Your task to perform on an android device: change alarm snooze length Image 0: 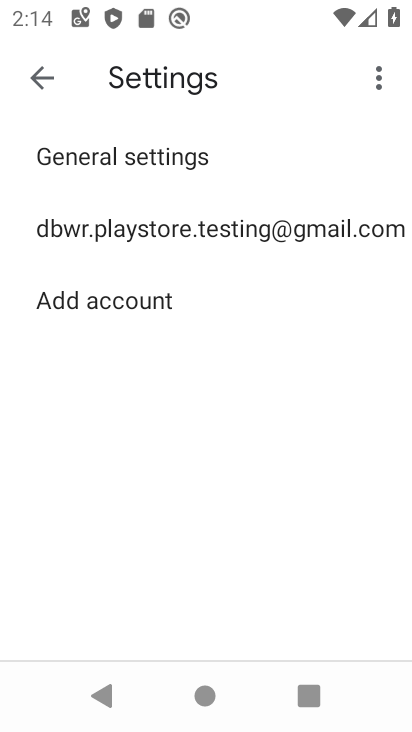
Step 0: press home button
Your task to perform on an android device: change alarm snooze length Image 1: 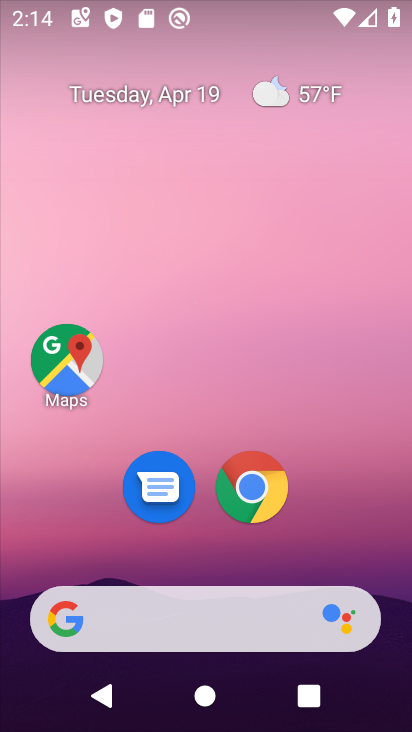
Step 1: drag from (200, 451) to (191, 43)
Your task to perform on an android device: change alarm snooze length Image 2: 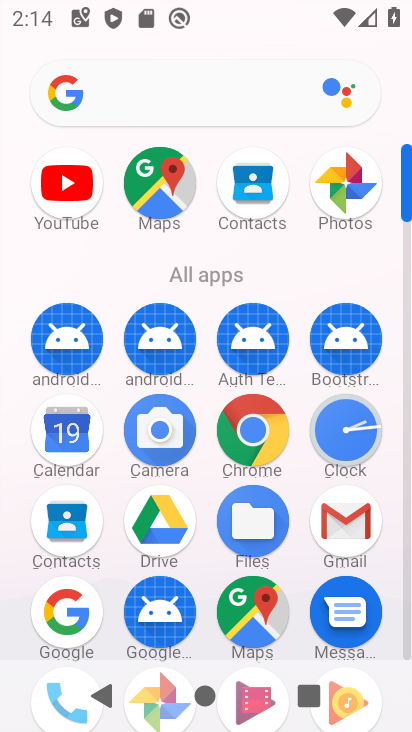
Step 2: click (362, 439)
Your task to perform on an android device: change alarm snooze length Image 3: 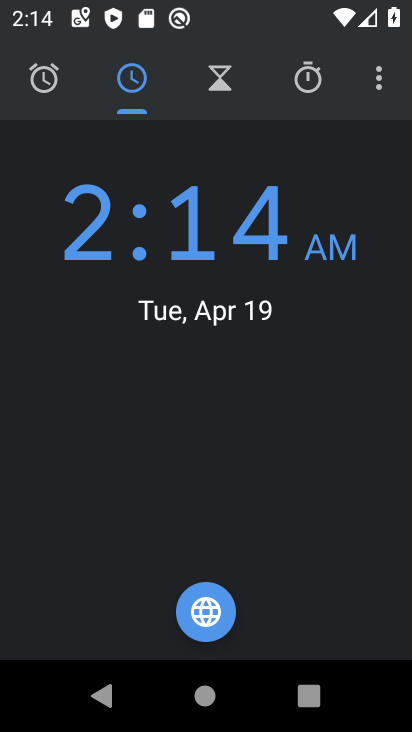
Step 3: click (380, 98)
Your task to perform on an android device: change alarm snooze length Image 4: 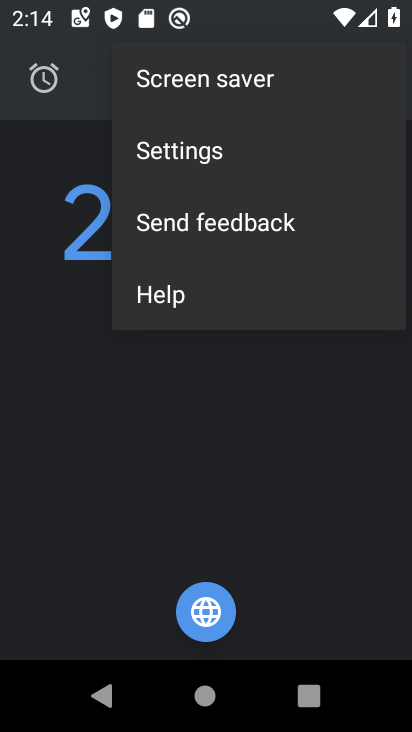
Step 4: click (224, 140)
Your task to perform on an android device: change alarm snooze length Image 5: 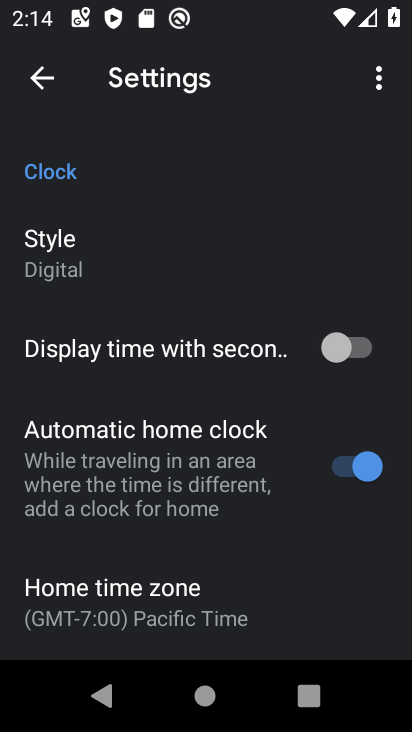
Step 5: drag from (143, 522) to (126, 94)
Your task to perform on an android device: change alarm snooze length Image 6: 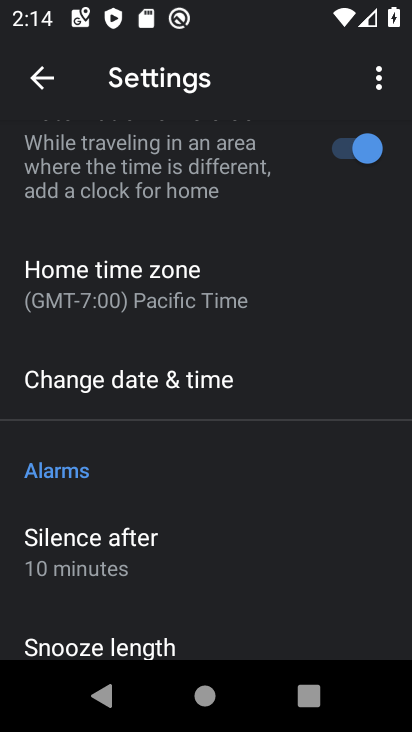
Step 6: drag from (99, 610) to (131, 147)
Your task to perform on an android device: change alarm snooze length Image 7: 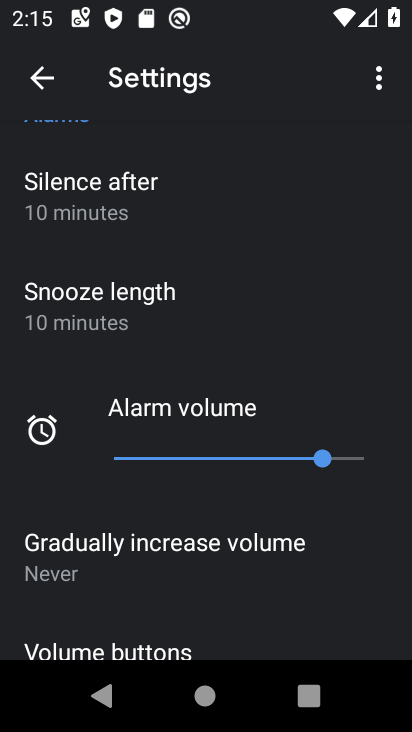
Step 7: click (88, 301)
Your task to perform on an android device: change alarm snooze length Image 8: 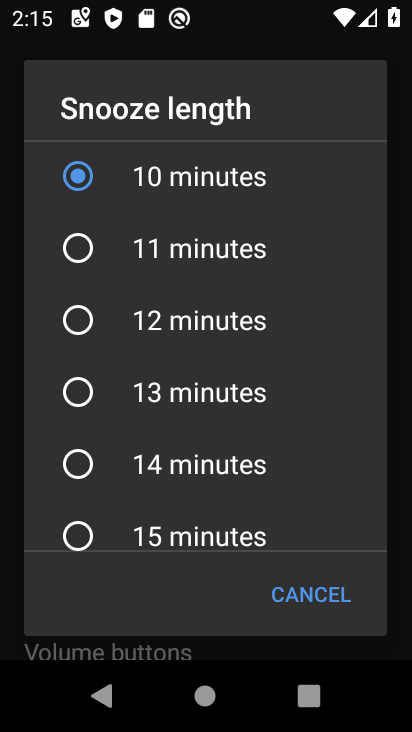
Step 8: click (167, 390)
Your task to perform on an android device: change alarm snooze length Image 9: 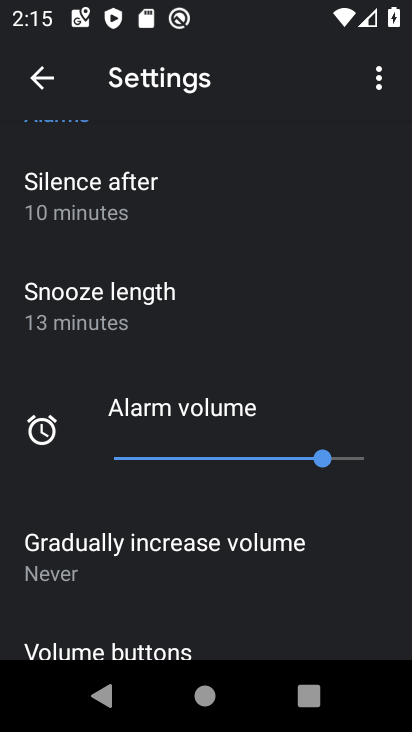
Step 9: task complete